Your task to perform on an android device: turn on the 12-hour format for clock Image 0: 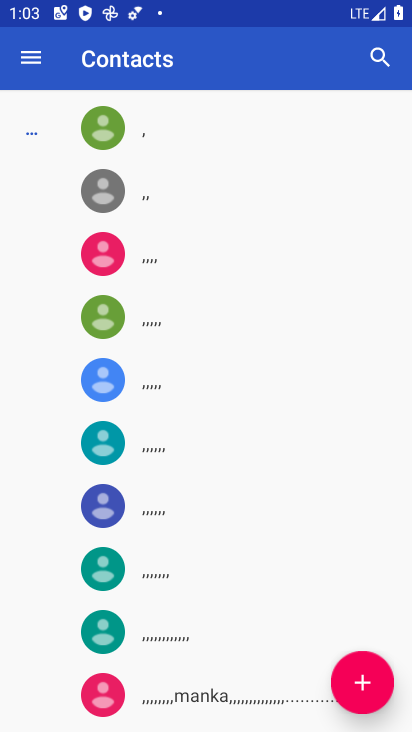
Step 0: press home button
Your task to perform on an android device: turn on the 12-hour format for clock Image 1: 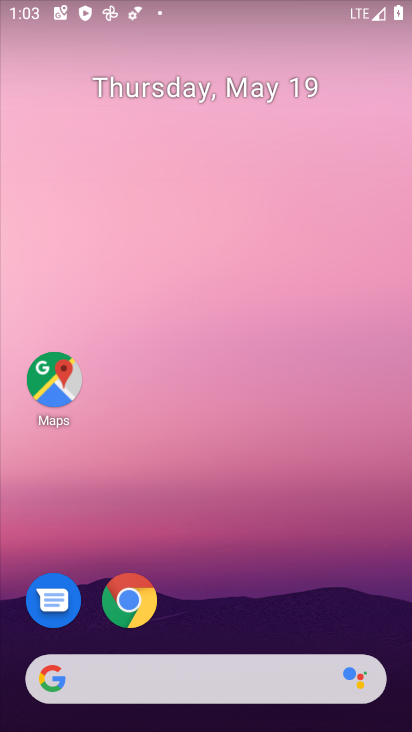
Step 1: drag from (281, 544) to (216, 38)
Your task to perform on an android device: turn on the 12-hour format for clock Image 2: 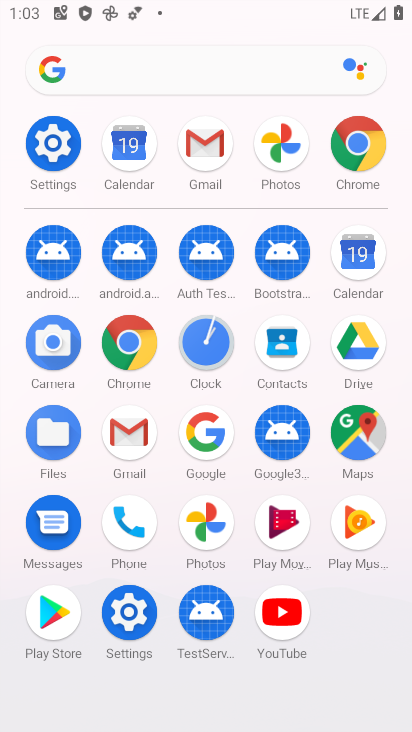
Step 2: click (204, 331)
Your task to perform on an android device: turn on the 12-hour format for clock Image 3: 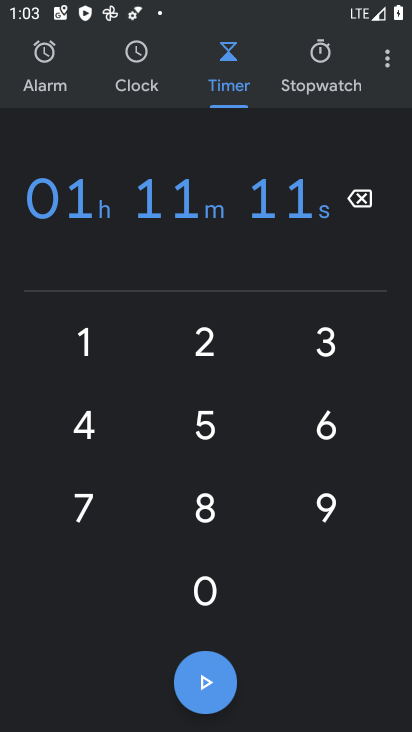
Step 3: click (380, 53)
Your task to perform on an android device: turn on the 12-hour format for clock Image 4: 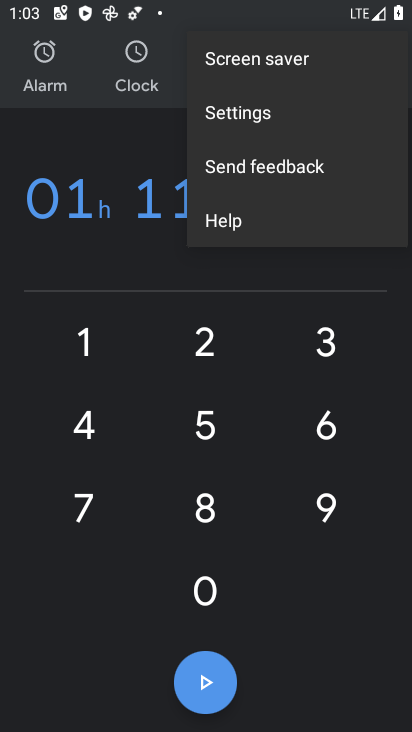
Step 4: click (219, 120)
Your task to perform on an android device: turn on the 12-hour format for clock Image 5: 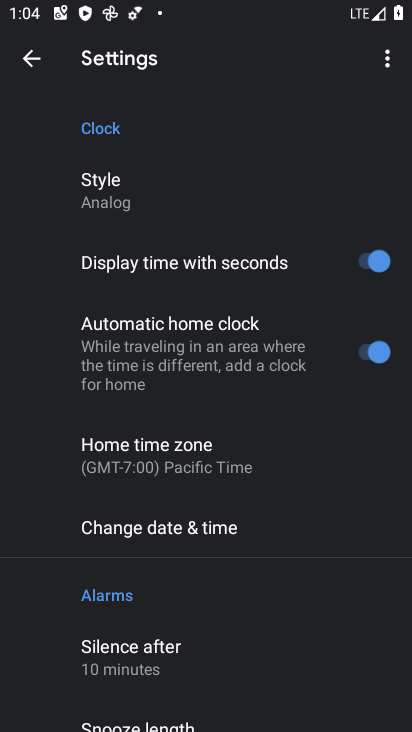
Step 5: drag from (282, 486) to (237, 227)
Your task to perform on an android device: turn on the 12-hour format for clock Image 6: 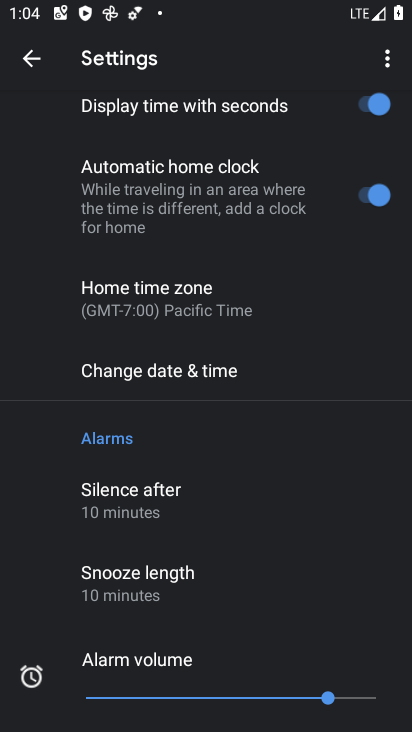
Step 6: click (190, 371)
Your task to perform on an android device: turn on the 12-hour format for clock Image 7: 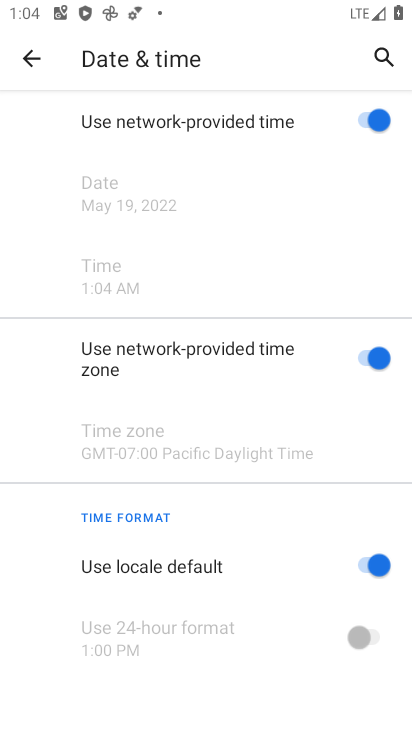
Step 7: drag from (226, 453) to (215, 148)
Your task to perform on an android device: turn on the 12-hour format for clock Image 8: 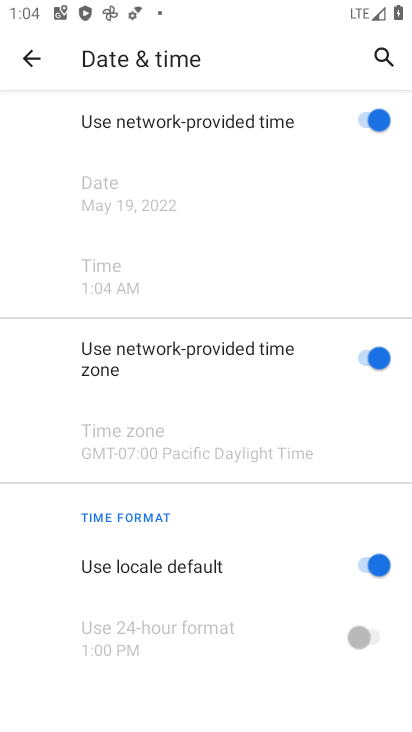
Step 8: click (373, 572)
Your task to perform on an android device: turn on the 12-hour format for clock Image 9: 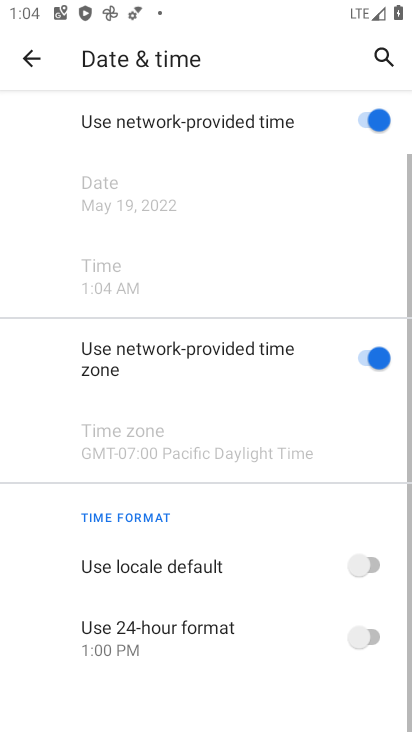
Step 9: click (367, 638)
Your task to perform on an android device: turn on the 12-hour format for clock Image 10: 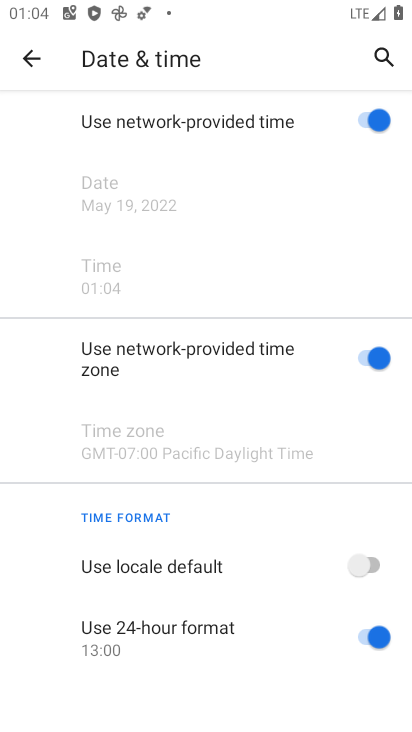
Step 10: task complete